Your task to perform on an android device: Find coffee shops on Maps Image 0: 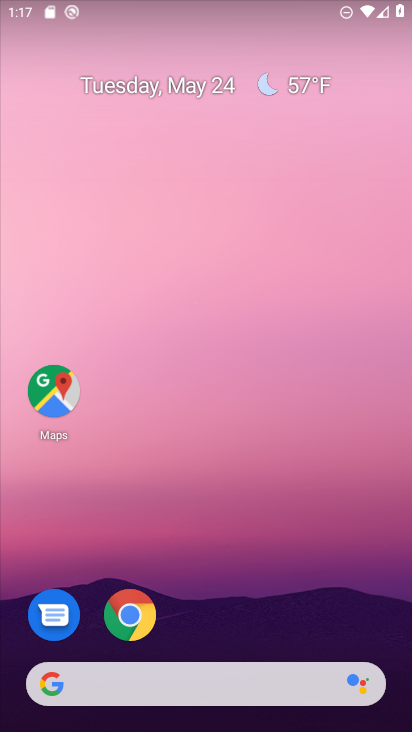
Step 0: click (62, 391)
Your task to perform on an android device: Find coffee shops on Maps Image 1: 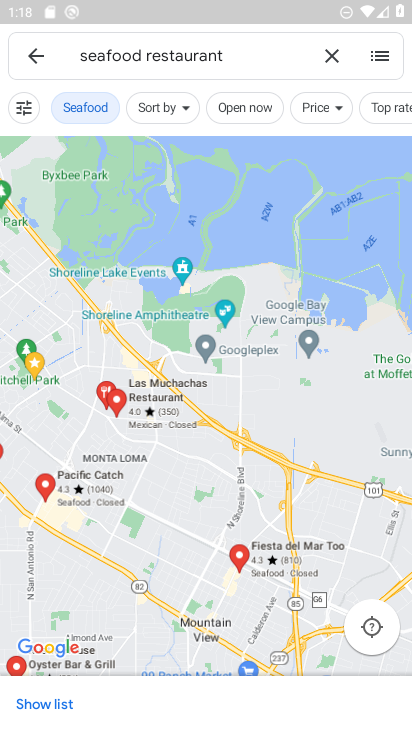
Step 1: click (337, 53)
Your task to perform on an android device: Find coffee shops on Maps Image 2: 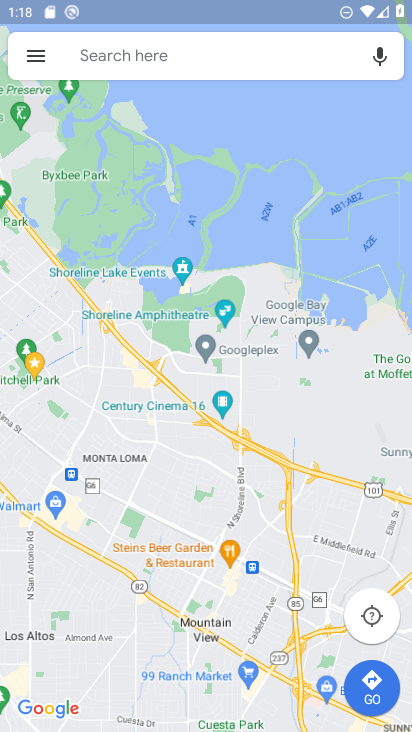
Step 2: click (207, 48)
Your task to perform on an android device: Find coffee shops on Maps Image 3: 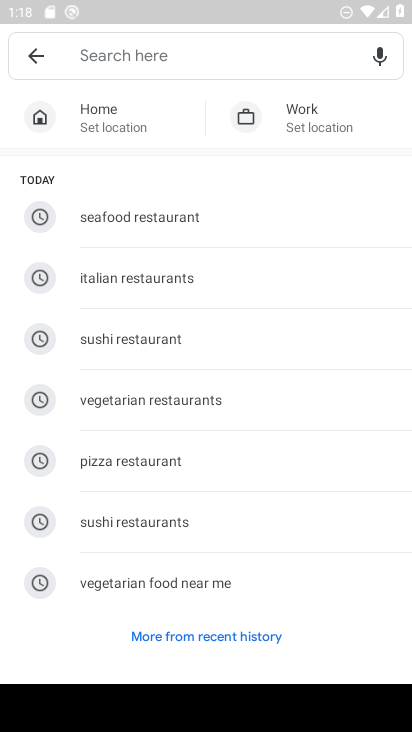
Step 3: type "coffee"
Your task to perform on an android device: Find coffee shops on Maps Image 4: 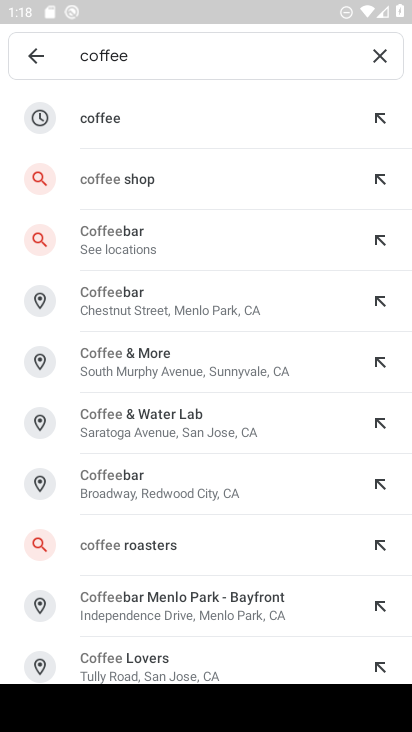
Step 4: click (146, 179)
Your task to perform on an android device: Find coffee shops on Maps Image 5: 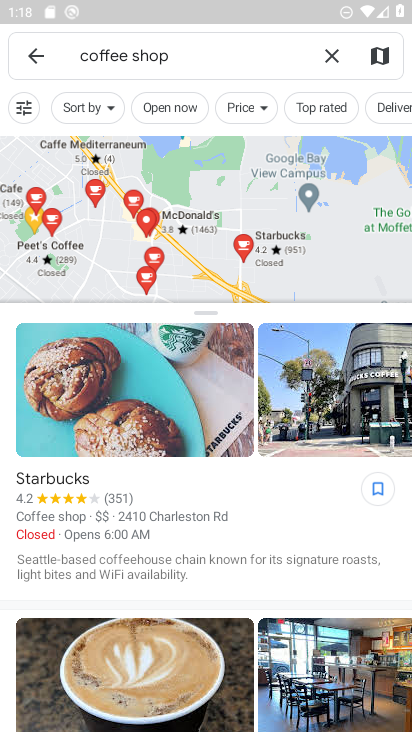
Step 5: task complete